Your task to perform on an android device: open app "Move to iOS" (install if not already installed) Image 0: 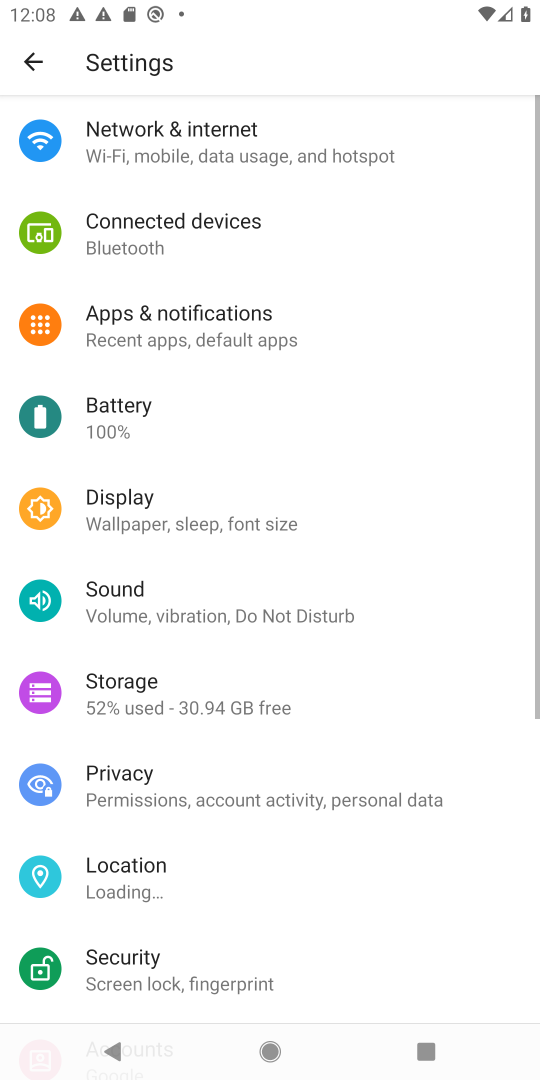
Step 0: press home button
Your task to perform on an android device: open app "Move to iOS" (install if not already installed) Image 1: 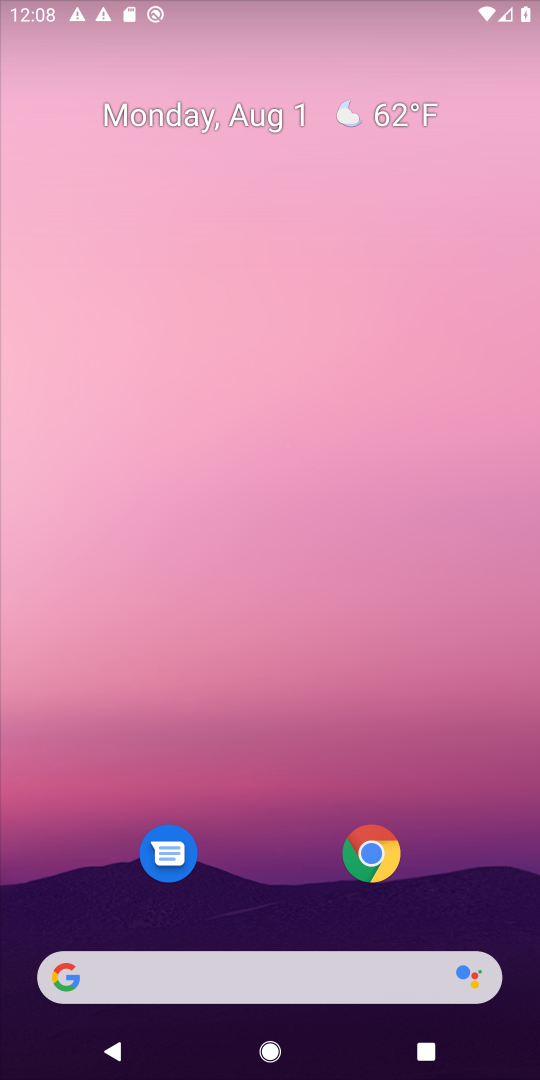
Step 1: drag from (299, 1074) to (309, 75)
Your task to perform on an android device: open app "Move to iOS" (install if not already installed) Image 2: 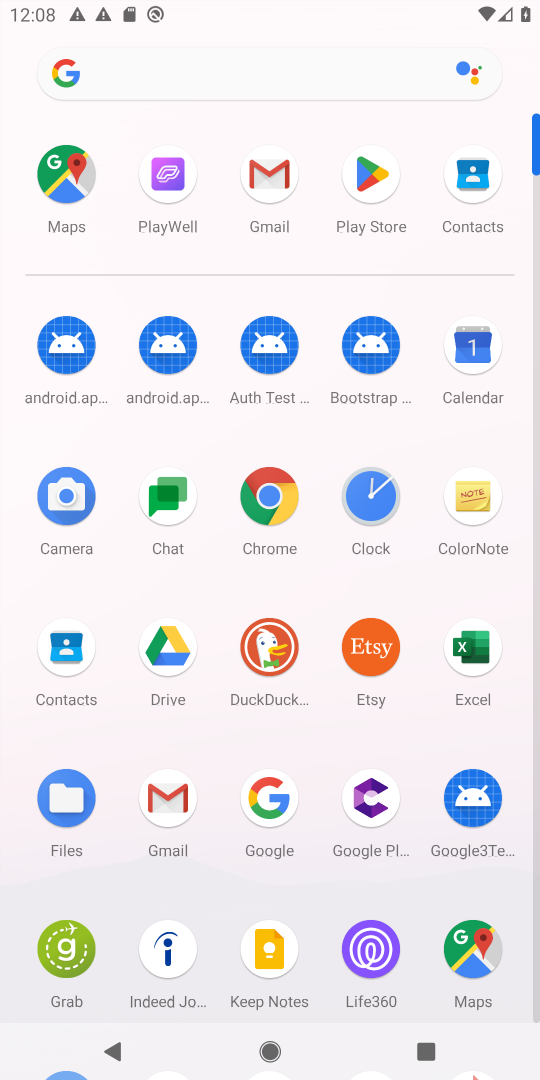
Step 2: click (377, 176)
Your task to perform on an android device: open app "Move to iOS" (install if not already installed) Image 3: 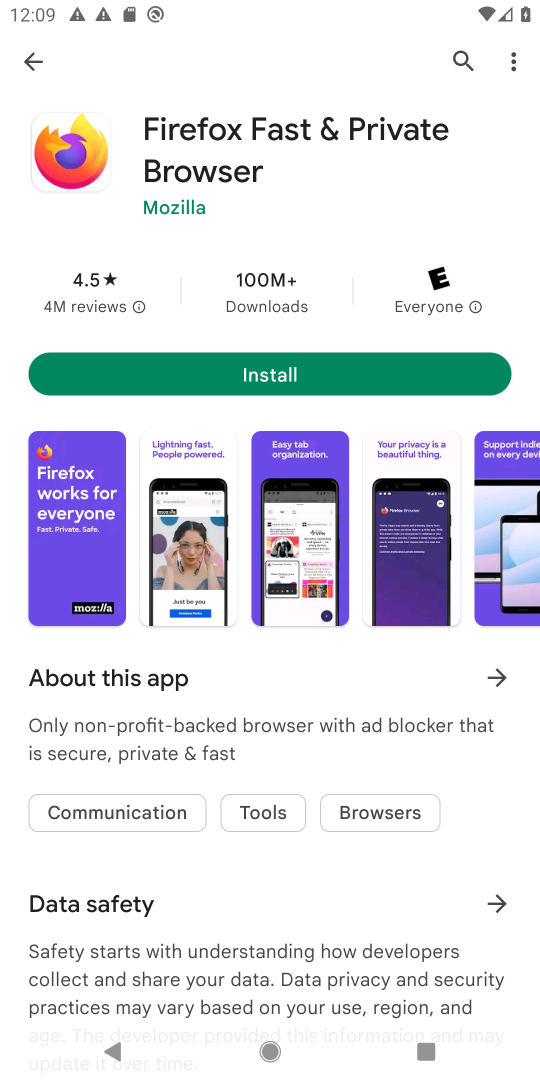
Step 3: click (460, 57)
Your task to perform on an android device: open app "Move to iOS" (install if not already installed) Image 4: 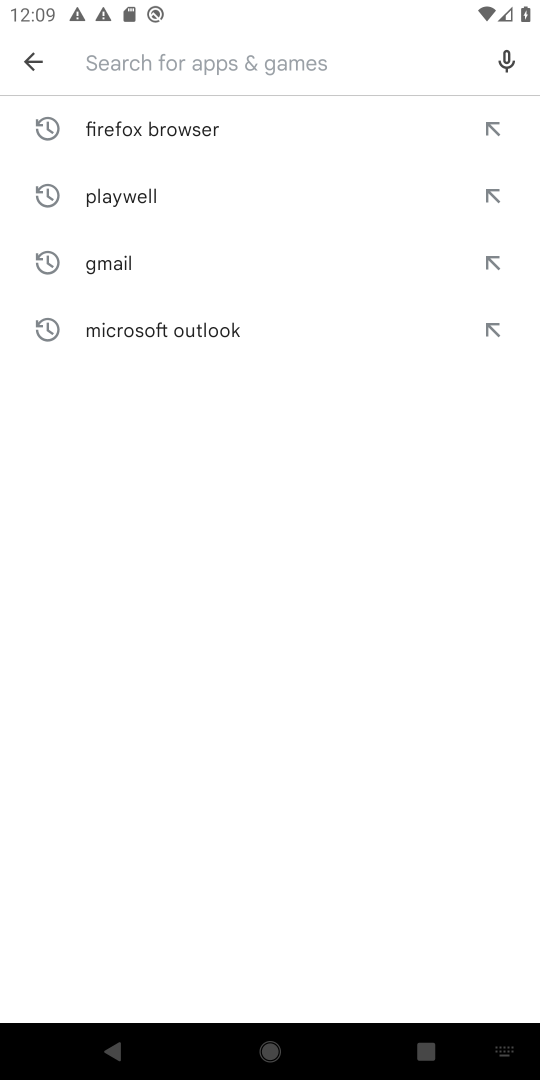
Step 4: press home button
Your task to perform on an android device: open app "Move to iOS" (install if not already installed) Image 5: 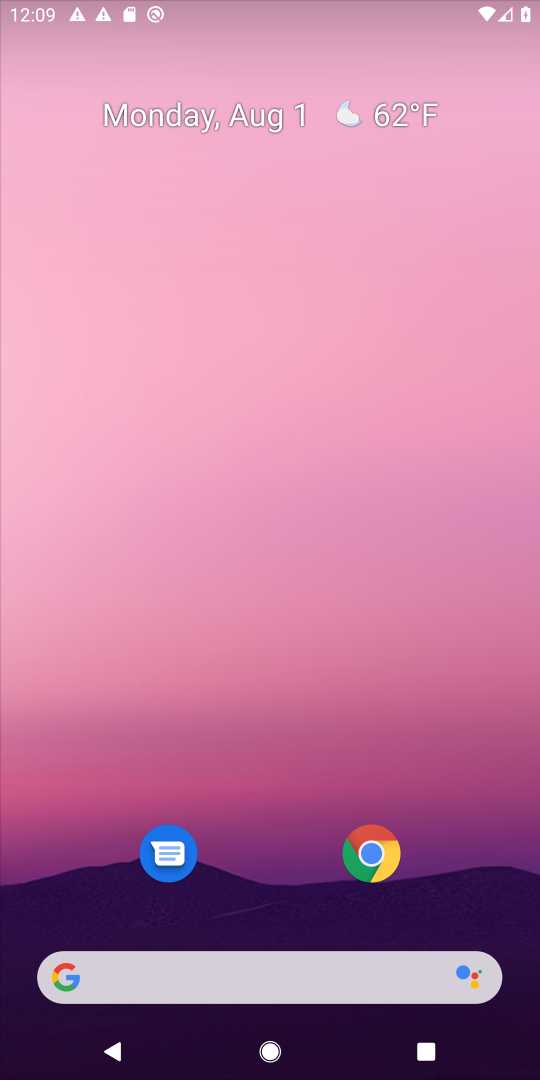
Step 5: drag from (310, 949) to (294, 11)
Your task to perform on an android device: open app "Move to iOS" (install if not already installed) Image 6: 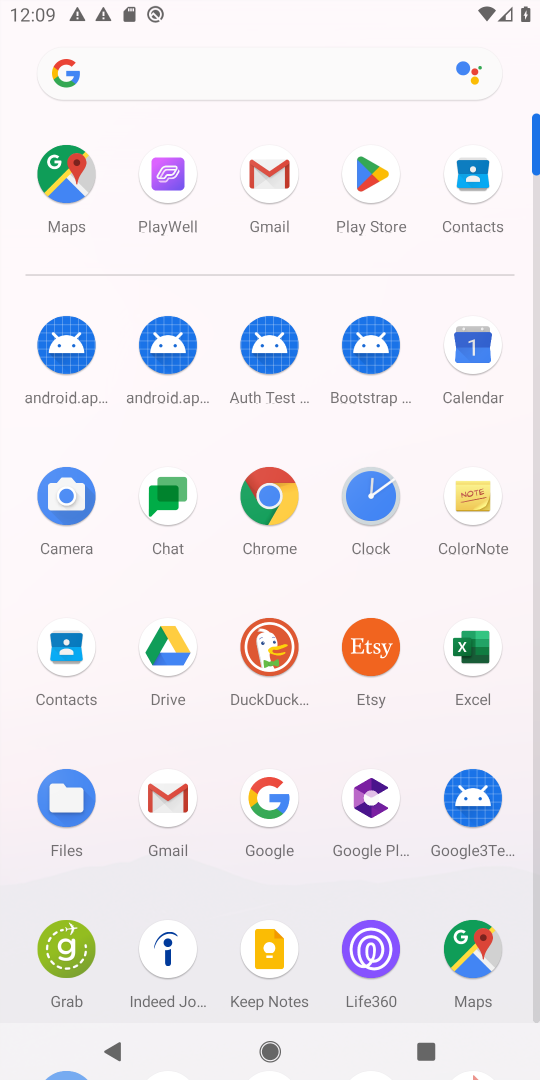
Step 6: drag from (297, 932) to (266, 523)
Your task to perform on an android device: open app "Move to iOS" (install if not already installed) Image 7: 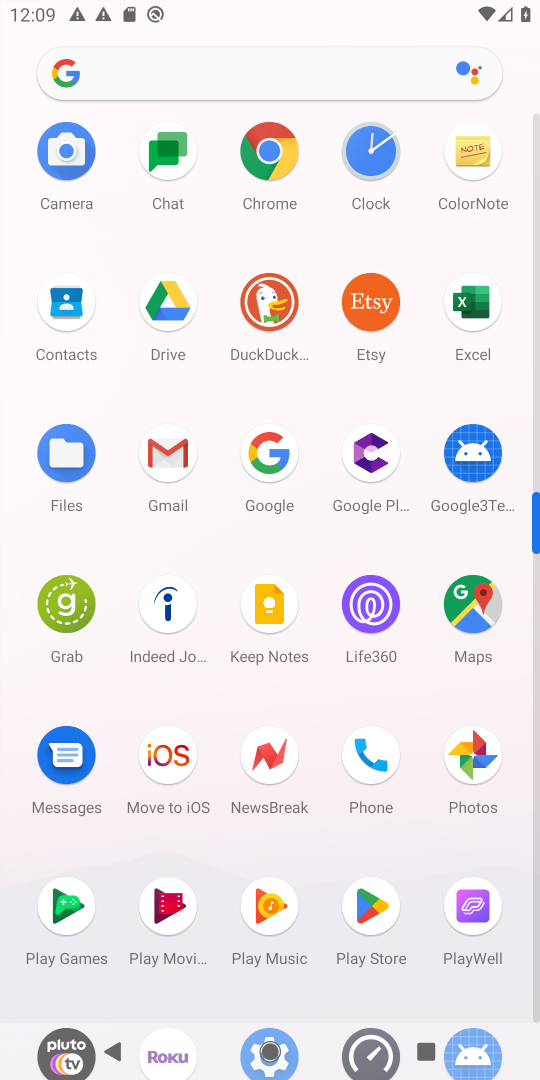
Step 7: click (173, 732)
Your task to perform on an android device: open app "Move to iOS" (install if not already installed) Image 8: 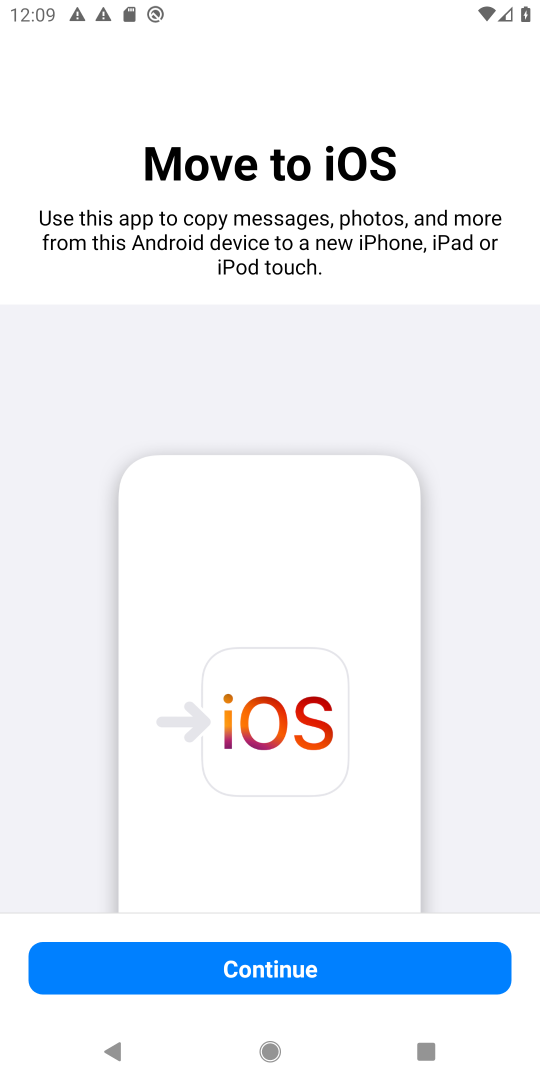
Step 8: task complete